Your task to perform on an android device: change your default location settings in chrome Image 0: 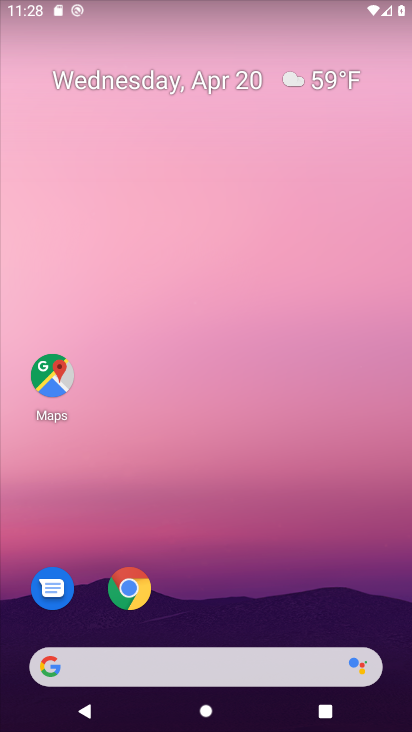
Step 0: click (130, 589)
Your task to perform on an android device: change your default location settings in chrome Image 1: 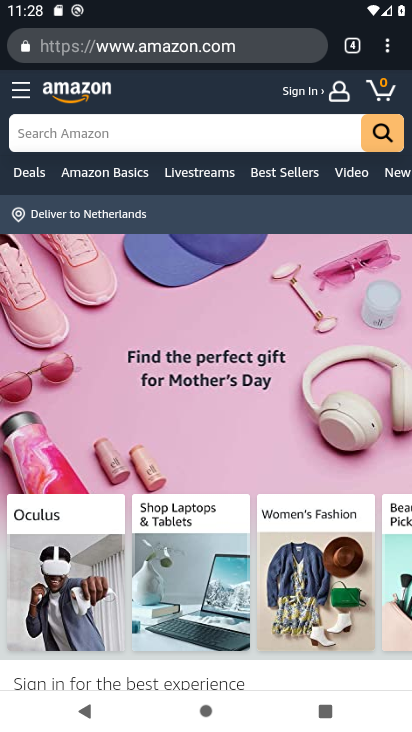
Step 1: click (386, 52)
Your task to perform on an android device: change your default location settings in chrome Image 2: 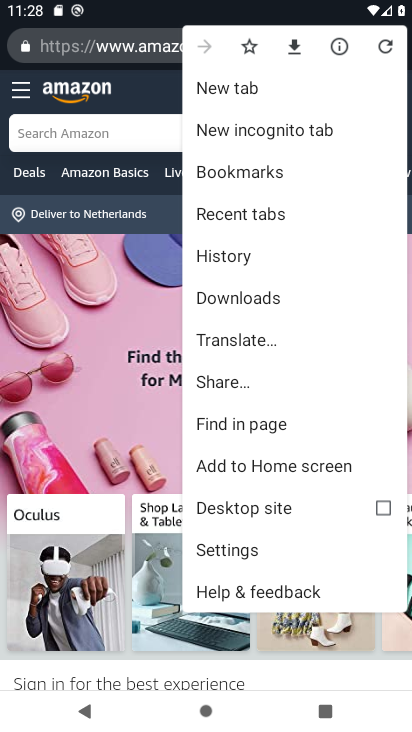
Step 2: click (225, 552)
Your task to perform on an android device: change your default location settings in chrome Image 3: 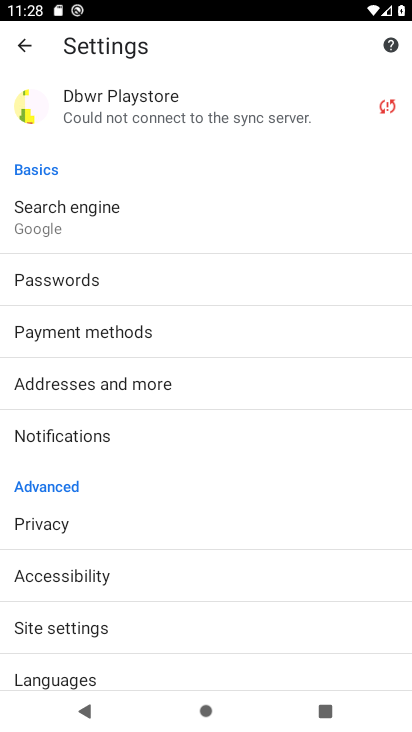
Step 3: drag from (186, 620) to (247, 372)
Your task to perform on an android device: change your default location settings in chrome Image 4: 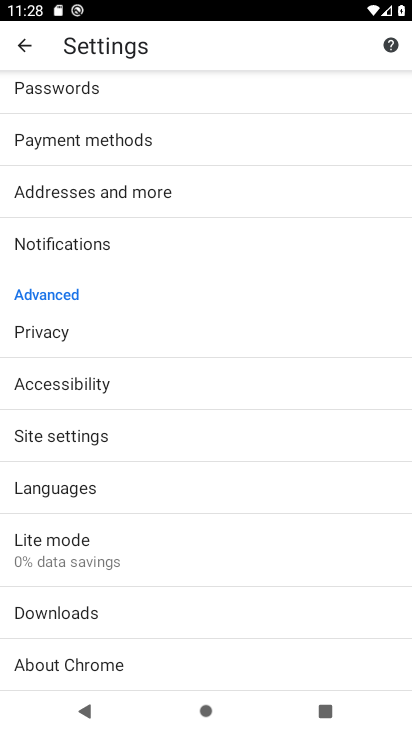
Step 4: click (47, 435)
Your task to perform on an android device: change your default location settings in chrome Image 5: 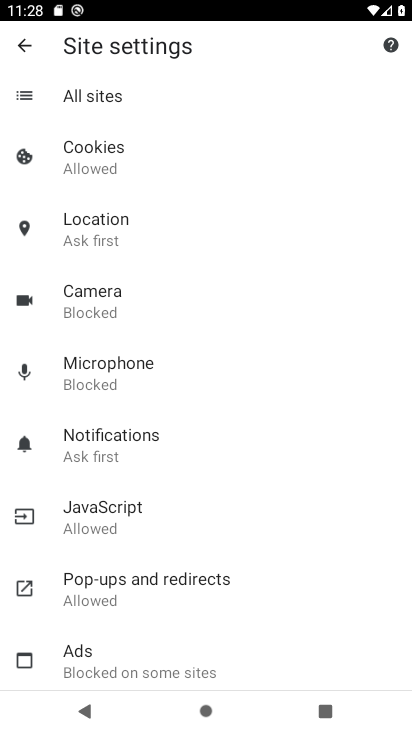
Step 5: click (81, 221)
Your task to perform on an android device: change your default location settings in chrome Image 6: 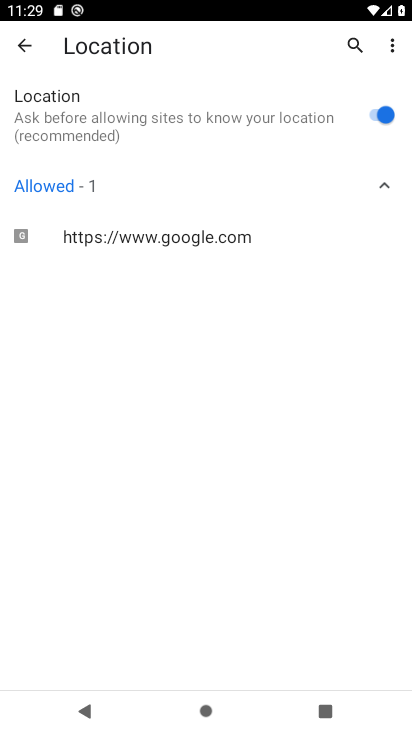
Step 6: click (369, 116)
Your task to perform on an android device: change your default location settings in chrome Image 7: 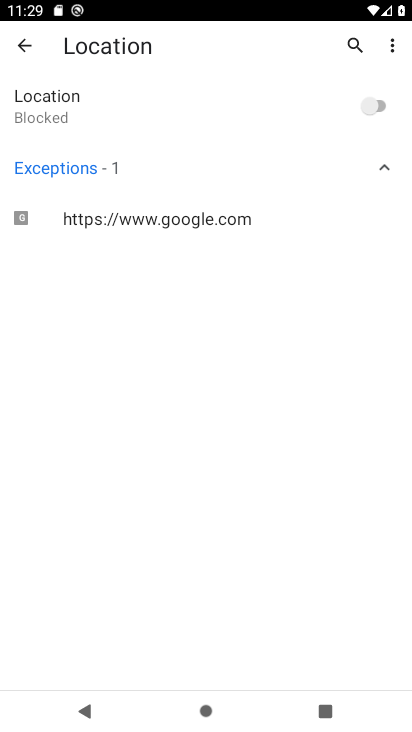
Step 7: task complete